Your task to perform on an android device: visit the assistant section in the google photos Image 0: 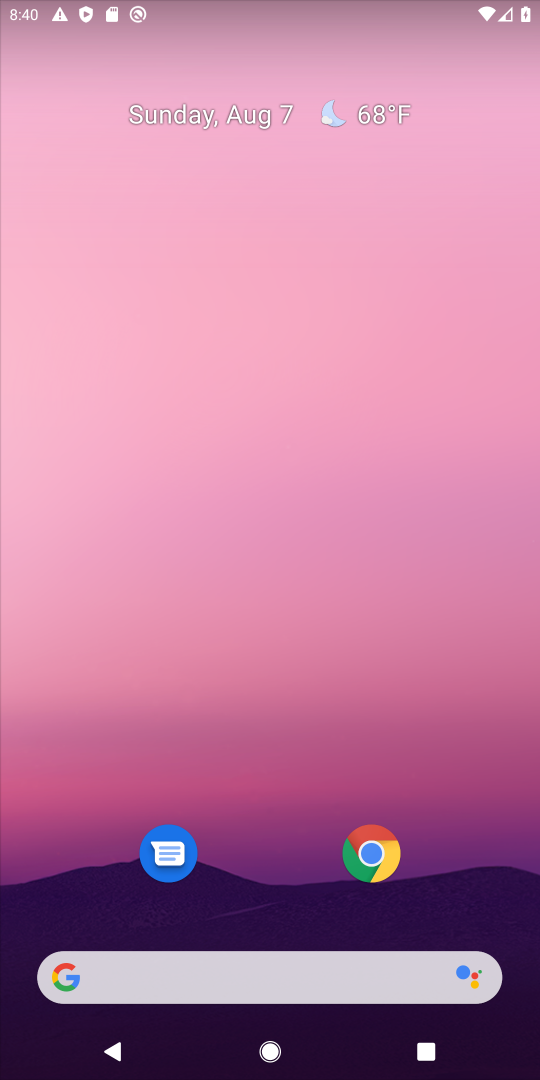
Step 0: drag from (337, 725) to (332, 228)
Your task to perform on an android device: visit the assistant section in the google photos Image 1: 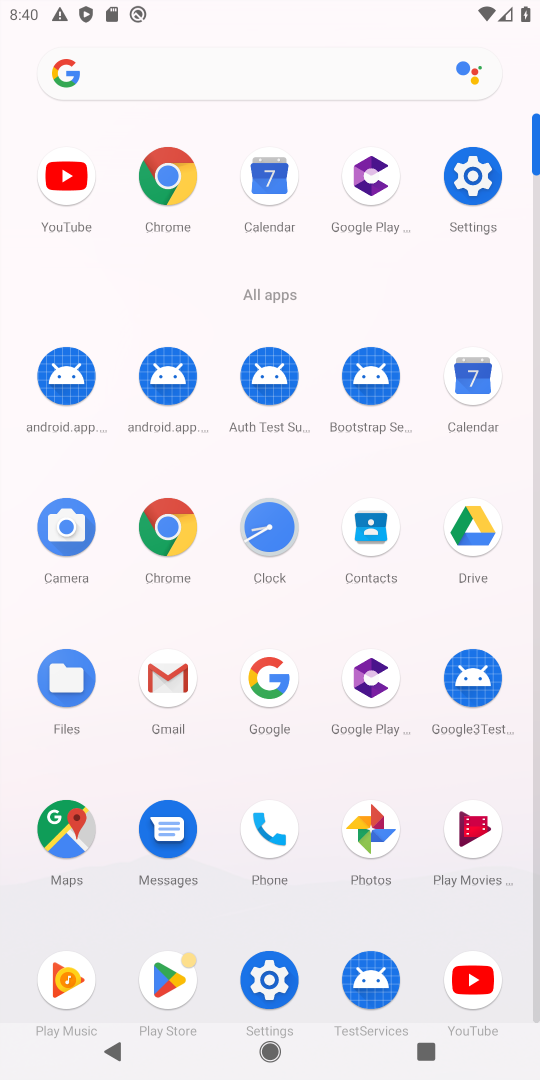
Step 1: click (369, 832)
Your task to perform on an android device: visit the assistant section in the google photos Image 2: 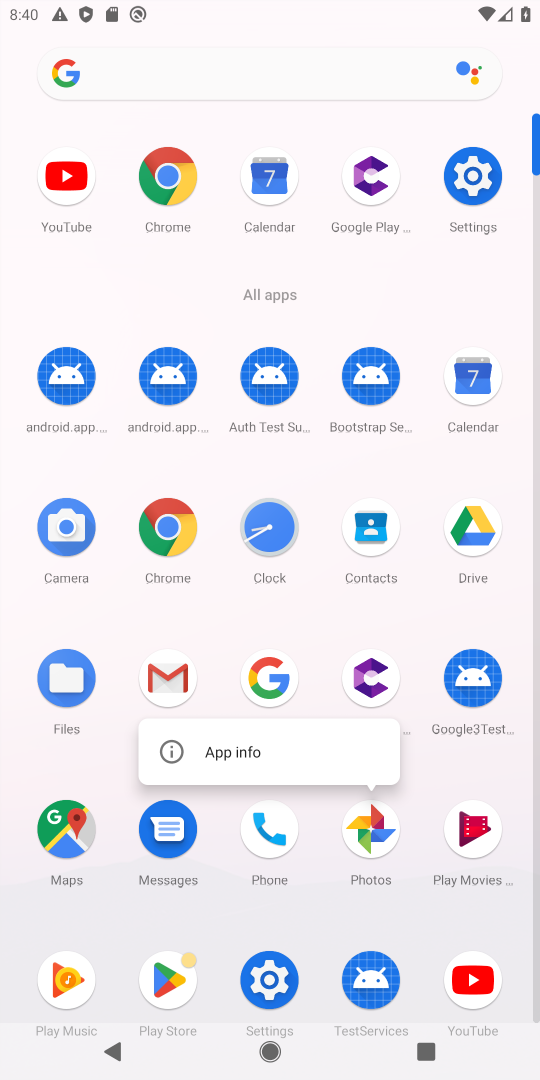
Step 2: click (369, 832)
Your task to perform on an android device: visit the assistant section in the google photos Image 3: 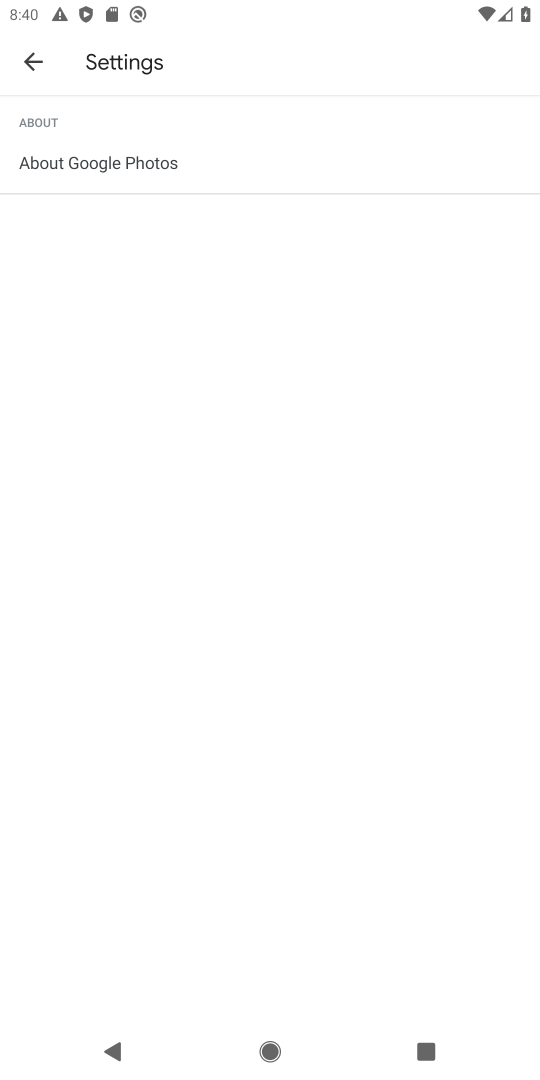
Step 3: click (26, 51)
Your task to perform on an android device: visit the assistant section in the google photos Image 4: 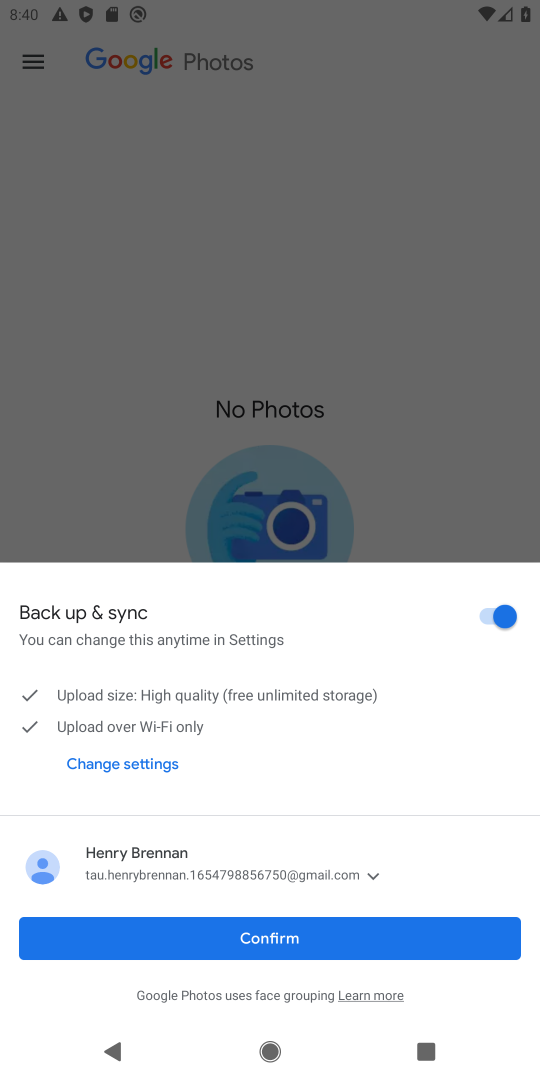
Step 4: click (229, 933)
Your task to perform on an android device: visit the assistant section in the google photos Image 5: 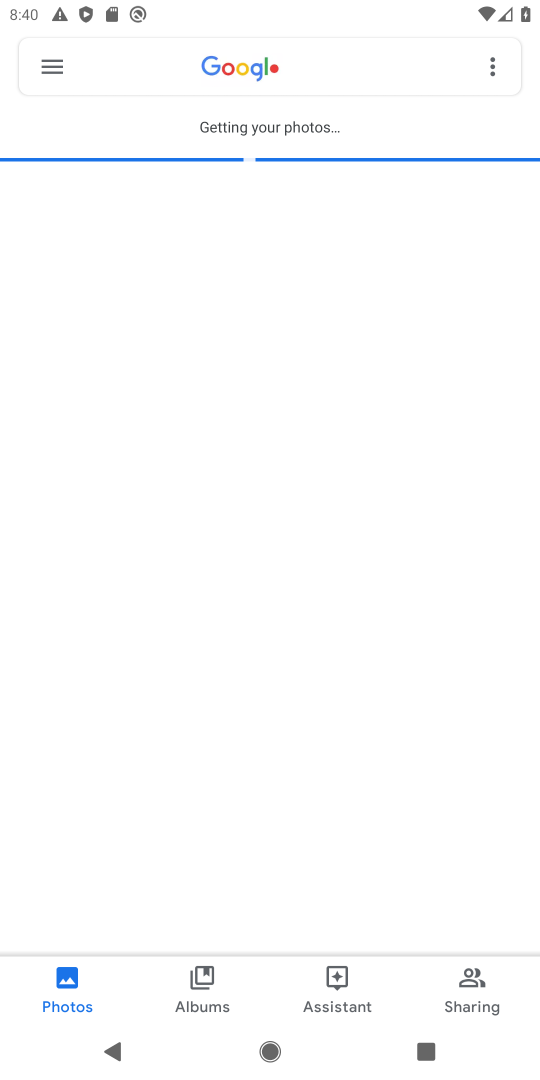
Step 5: click (331, 984)
Your task to perform on an android device: visit the assistant section in the google photos Image 6: 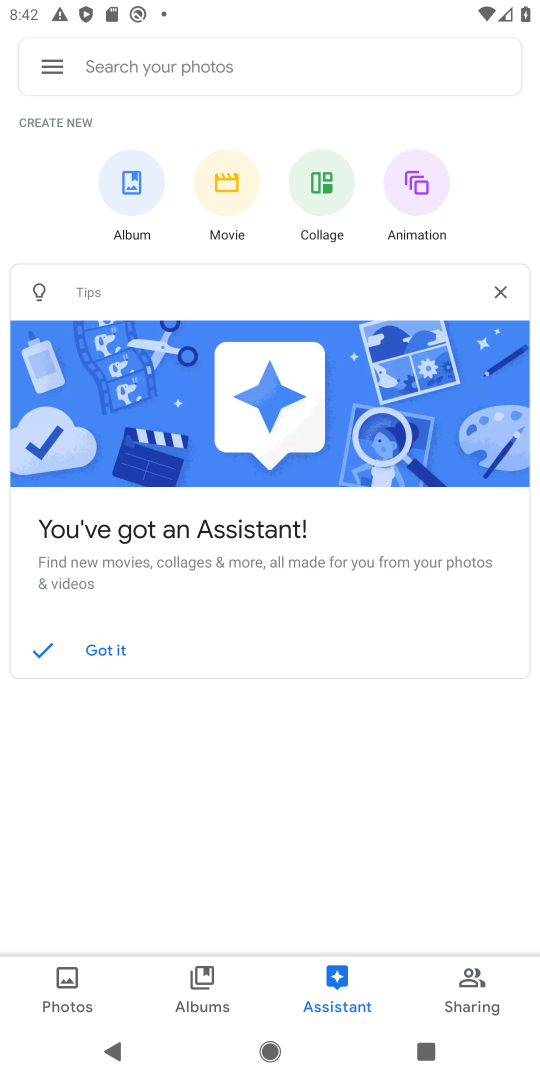
Step 6: task complete